Your task to perform on an android device: read, delete, or share a saved page in the chrome app Image 0: 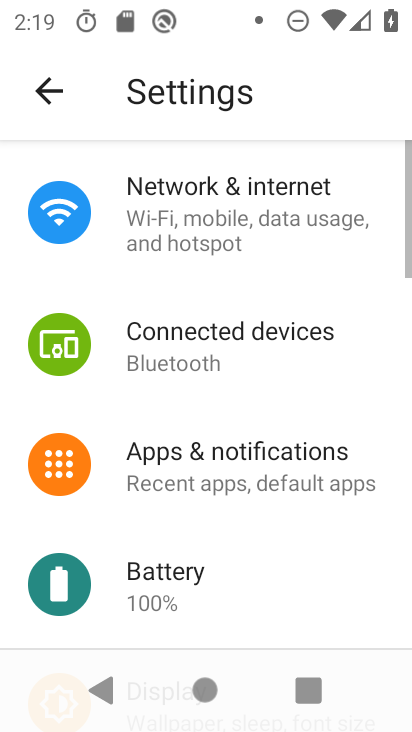
Step 0: press home button
Your task to perform on an android device: read, delete, or share a saved page in the chrome app Image 1: 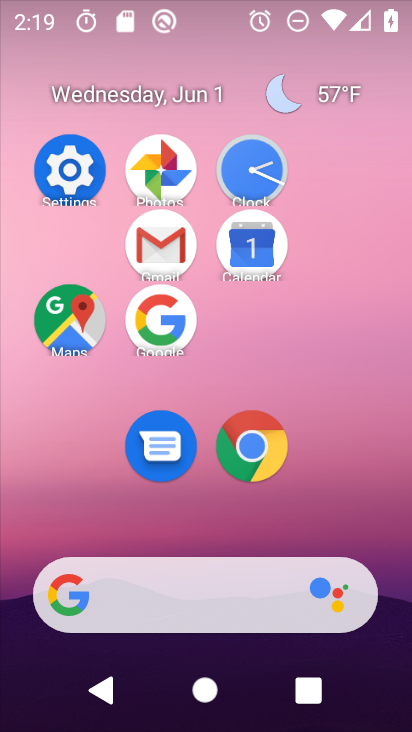
Step 1: click (261, 433)
Your task to perform on an android device: read, delete, or share a saved page in the chrome app Image 2: 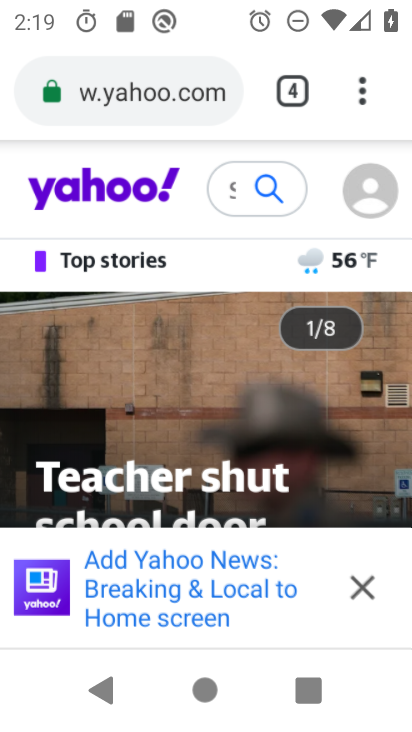
Step 2: click (374, 78)
Your task to perform on an android device: read, delete, or share a saved page in the chrome app Image 3: 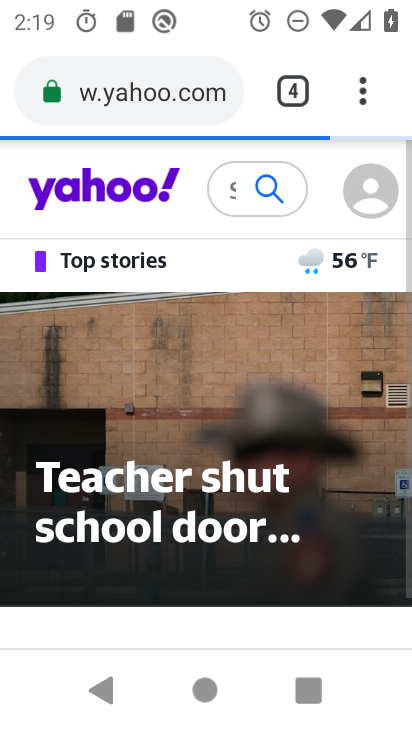
Step 3: click (380, 83)
Your task to perform on an android device: read, delete, or share a saved page in the chrome app Image 4: 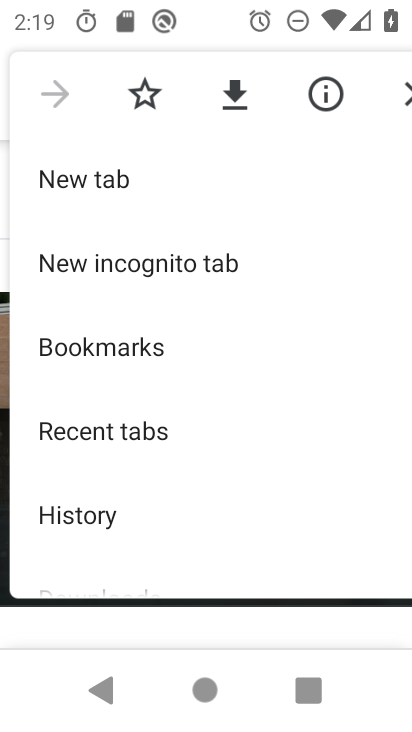
Step 4: drag from (155, 381) to (174, 73)
Your task to perform on an android device: read, delete, or share a saved page in the chrome app Image 5: 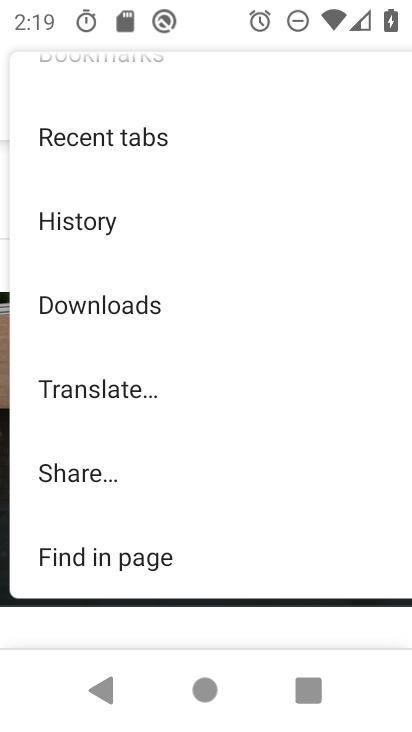
Step 5: click (148, 299)
Your task to perform on an android device: read, delete, or share a saved page in the chrome app Image 6: 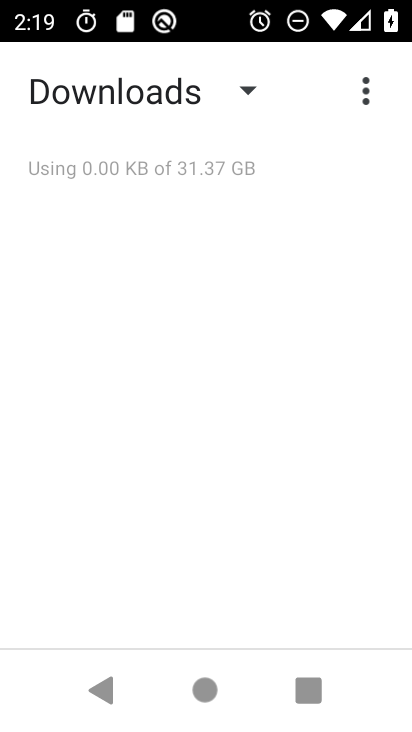
Step 6: task complete